Your task to perform on an android device: Open Amazon Image 0: 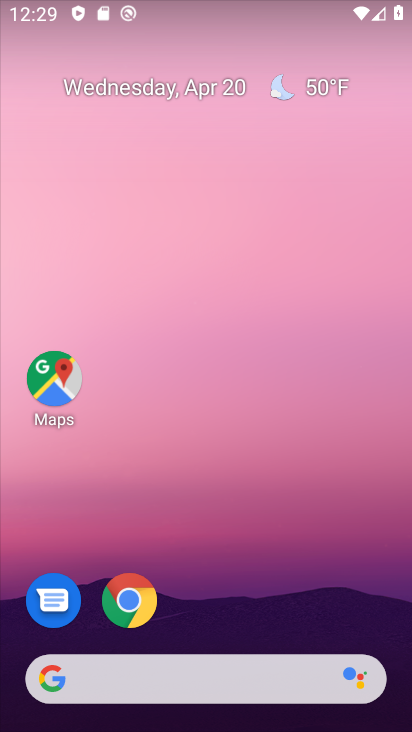
Step 0: click (130, 606)
Your task to perform on an android device: Open Amazon Image 1: 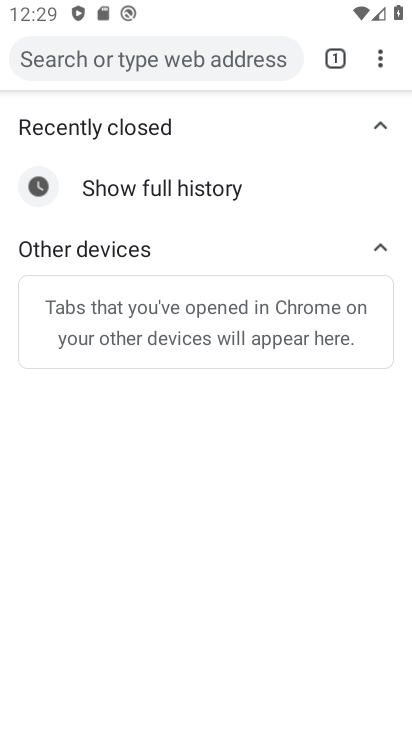
Step 1: click (341, 55)
Your task to perform on an android device: Open Amazon Image 2: 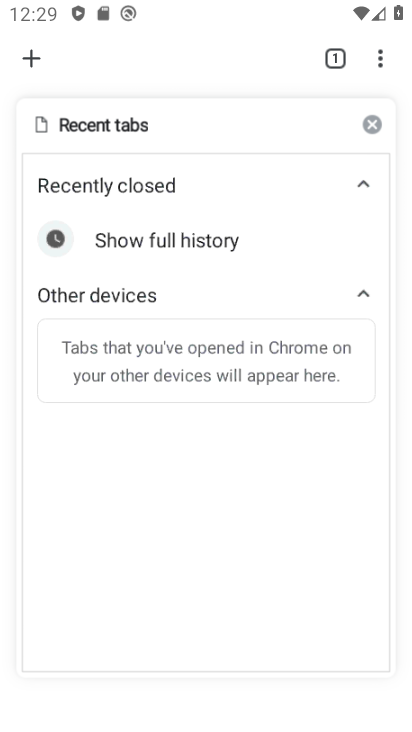
Step 2: click (33, 59)
Your task to perform on an android device: Open Amazon Image 3: 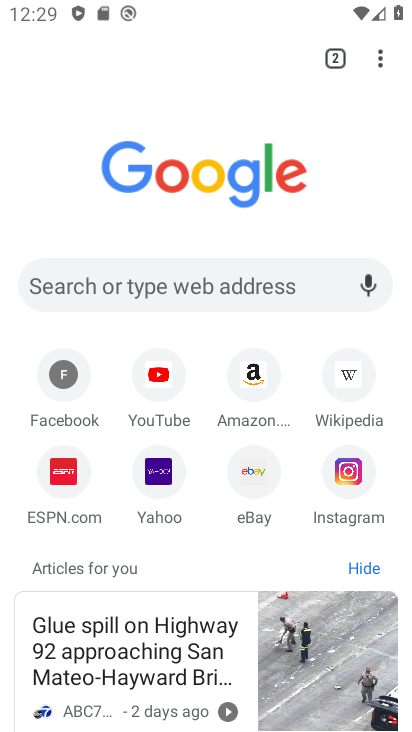
Step 3: click (256, 380)
Your task to perform on an android device: Open Amazon Image 4: 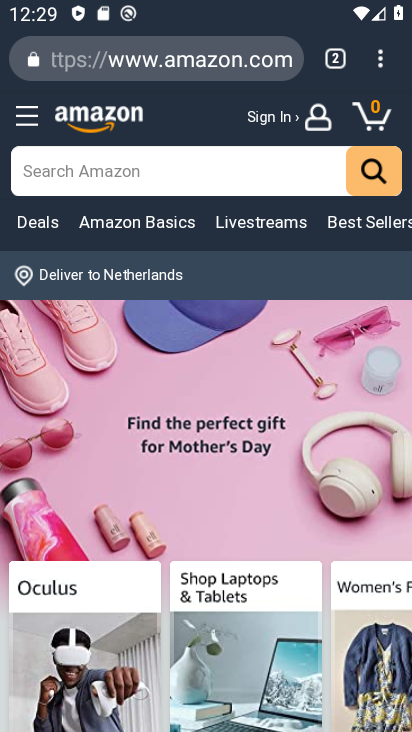
Step 4: task complete